Your task to perform on an android device: delete browsing data in the chrome app Image 0: 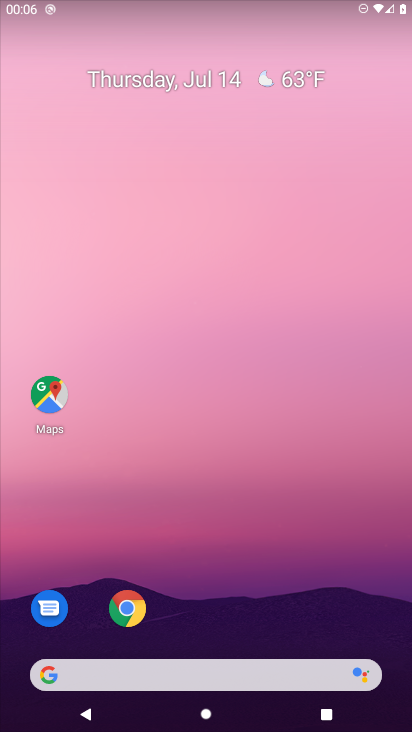
Step 0: press home button
Your task to perform on an android device: delete browsing data in the chrome app Image 1: 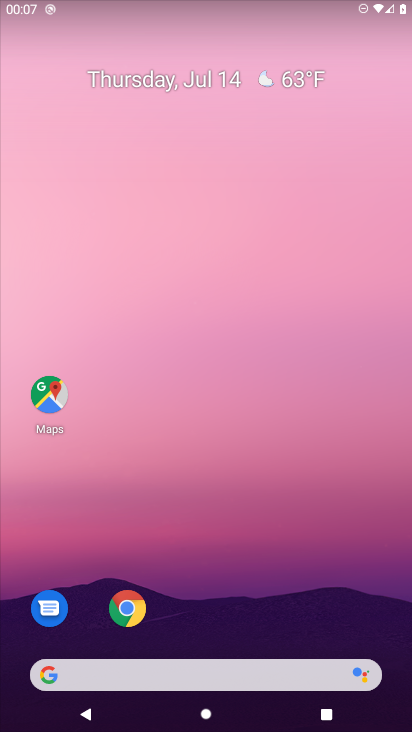
Step 1: drag from (221, 642) to (234, 40)
Your task to perform on an android device: delete browsing data in the chrome app Image 2: 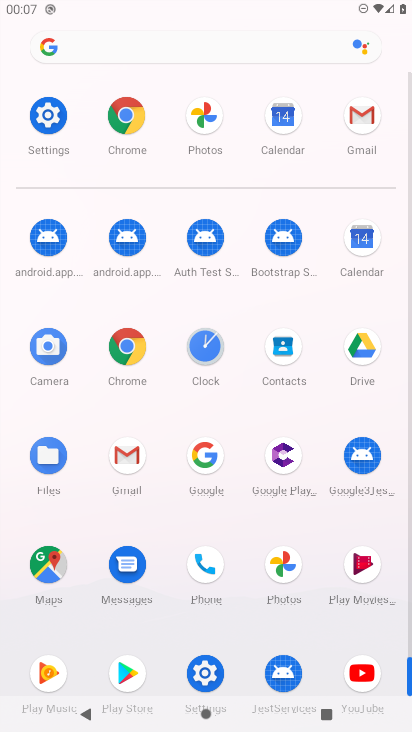
Step 2: click (131, 128)
Your task to perform on an android device: delete browsing data in the chrome app Image 3: 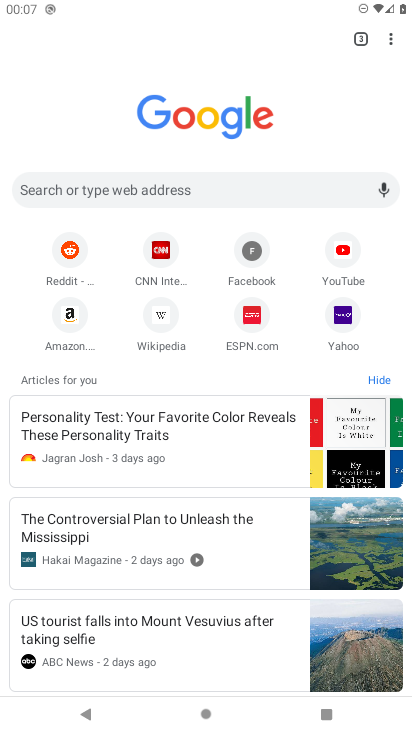
Step 3: drag from (389, 39) to (259, 332)
Your task to perform on an android device: delete browsing data in the chrome app Image 4: 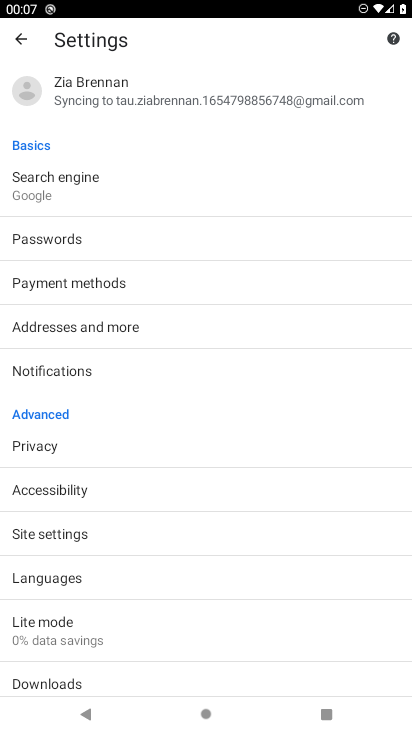
Step 4: click (34, 452)
Your task to perform on an android device: delete browsing data in the chrome app Image 5: 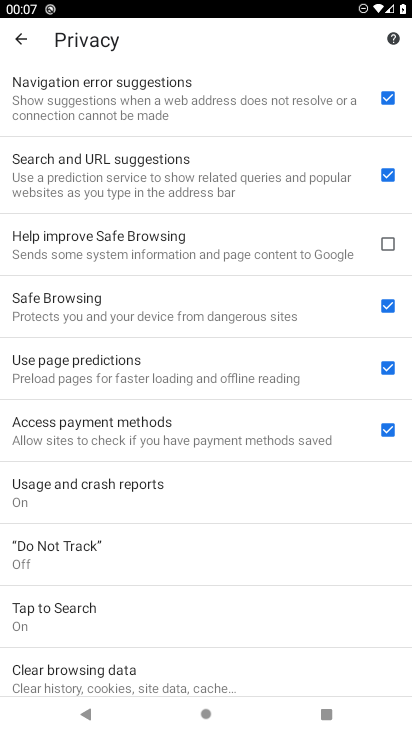
Step 5: click (91, 681)
Your task to perform on an android device: delete browsing data in the chrome app Image 6: 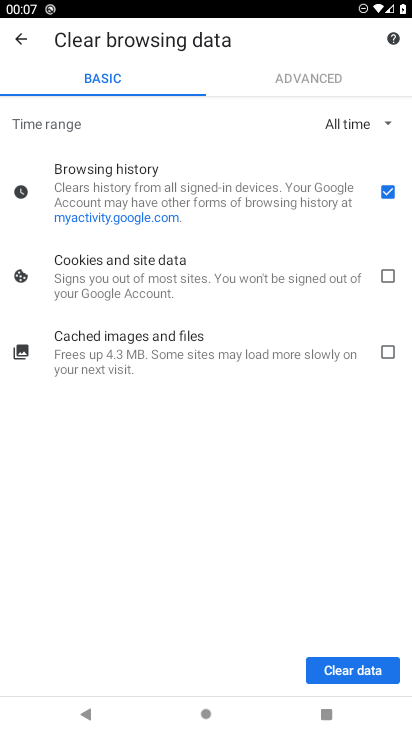
Step 6: click (391, 275)
Your task to perform on an android device: delete browsing data in the chrome app Image 7: 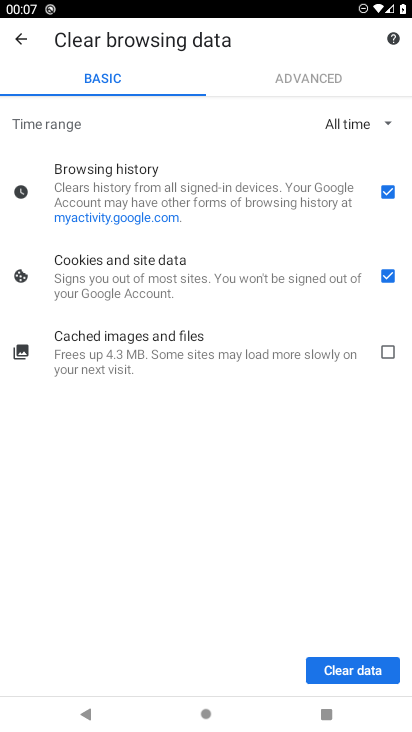
Step 7: click (392, 352)
Your task to perform on an android device: delete browsing data in the chrome app Image 8: 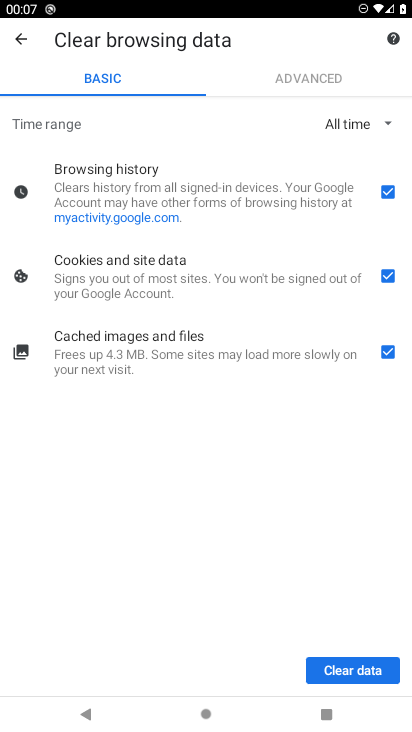
Step 8: click (348, 671)
Your task to perform on an android device: delete browsing data in the chrome app Image 9: 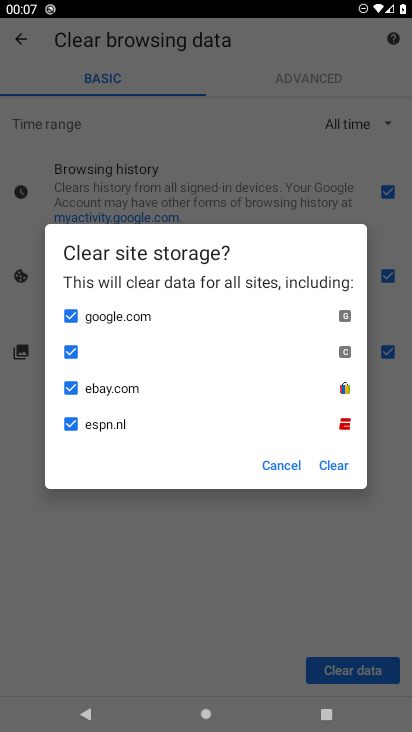
Step 9: click (341, 465)
Your task to perform on an android device: delete browsing data in the chrome app Image 10: 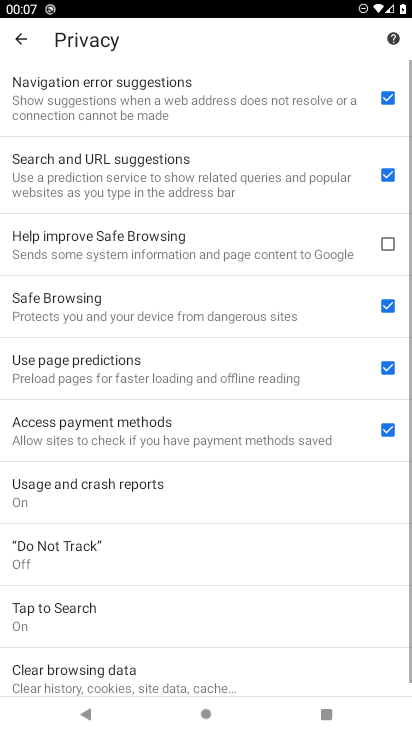
Step 10: task complete